Your task to perform on an android device: turn on translation in the chrome app Image 0: 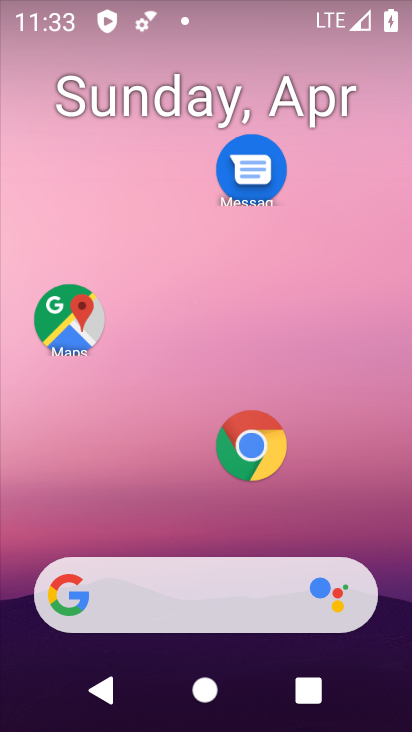
Step 0: press home button
Your task to perform on an android device: turn on translation in the chrome app Image 1: 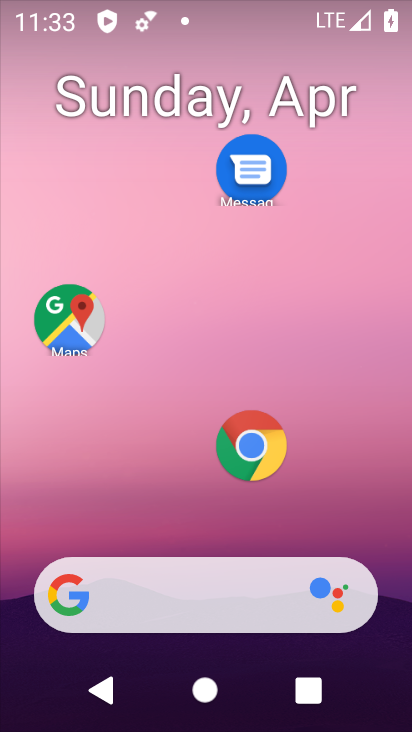
Step 1: drag from (151, 602) to (301, 123)
Your task to perform on an android device: turn on translation in the chrome app Image 2: 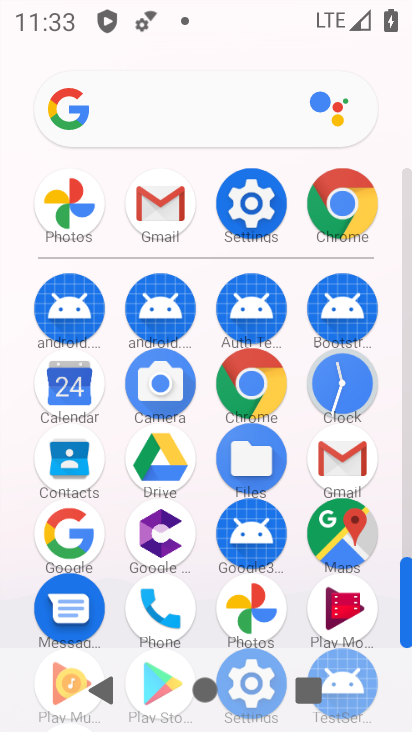
Step 2: click (343, 219)
Your task to perform on an android device: turn on translation in the chrome app Image 3: 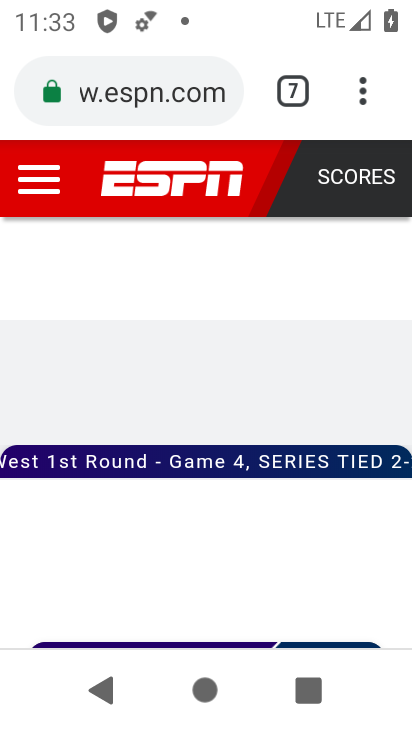
Step 3: drag from (362, 103) to (187, 472)
Your task to perform on an android device: turn on translation in the chrome app Image 4: 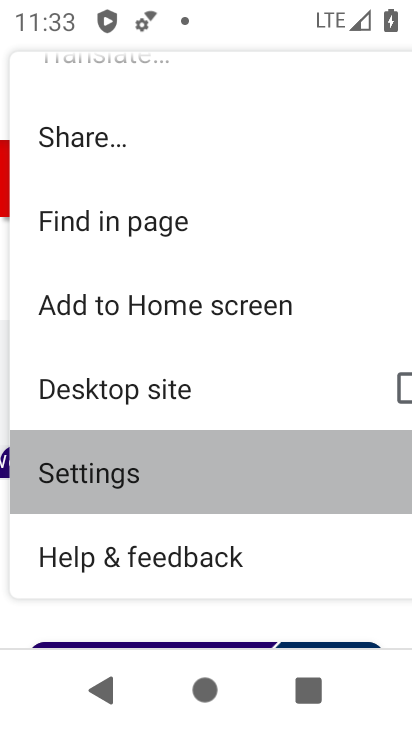
Step 4: click (187, 473)
Your task to perform on an android device: turn on translation in the chrome app Image 5: 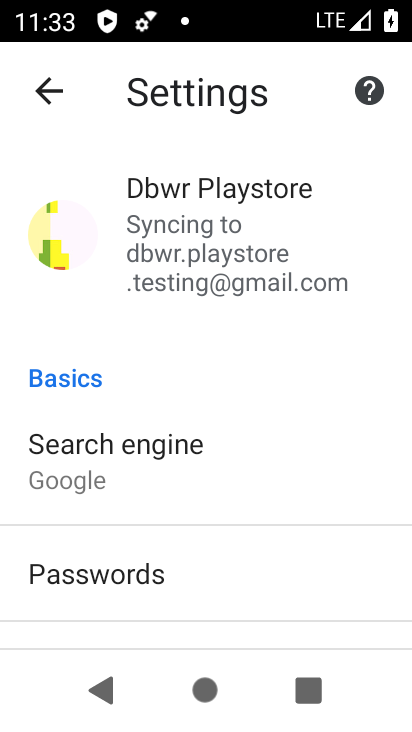
Step 5: drag from (141, 594) to (306, 203)
Your task to perform on an android device: turn on translation in the chrome app Image 6: 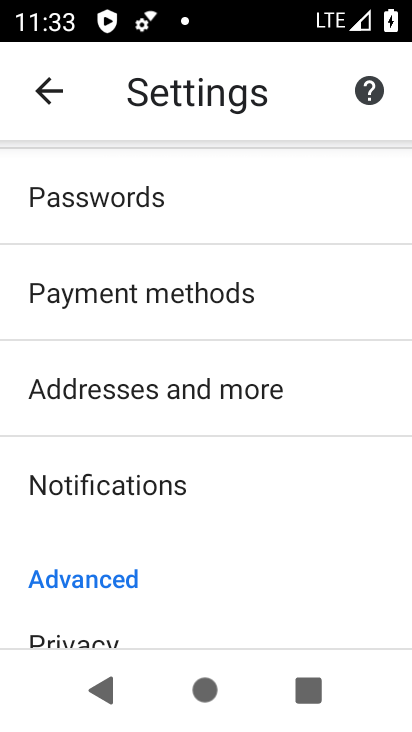
Step 6: drag from (188, 623) to (361, 110)
Your task to perform on an android device: turn on translation in the chrome app Image 7: 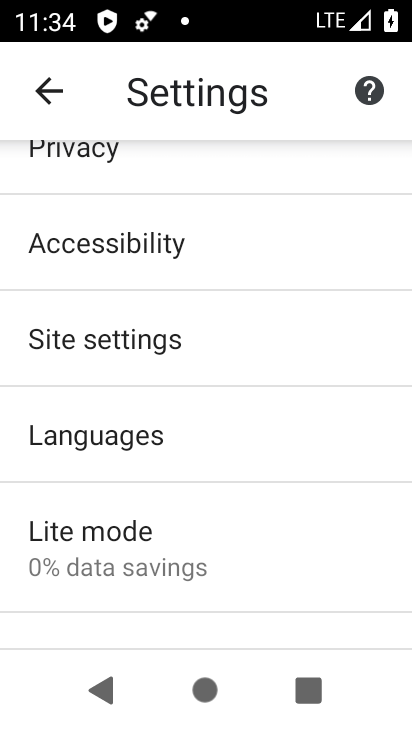
Step 7: click (133, 436)
Your task to perform on an android device: turn on translation in the chrome app Image 8: 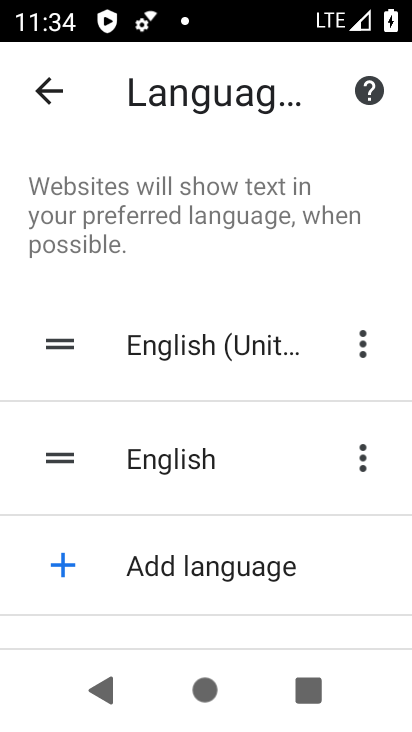
Step 8: task complete